Your task to perform on an android device: Check the news Image 0: 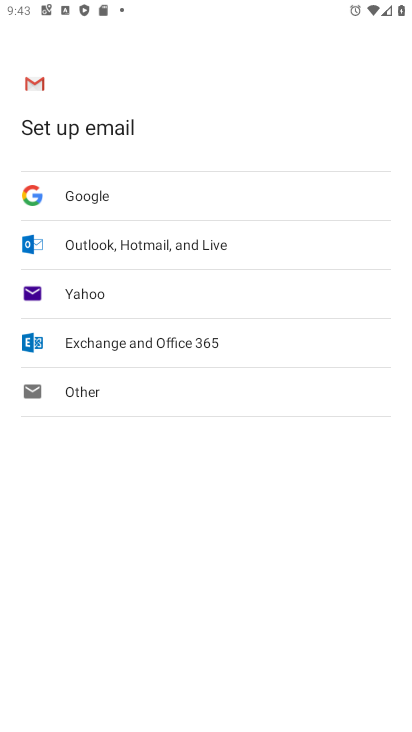
Step 0: press home button
Your task to perform on an android device: Check the news Image 1: 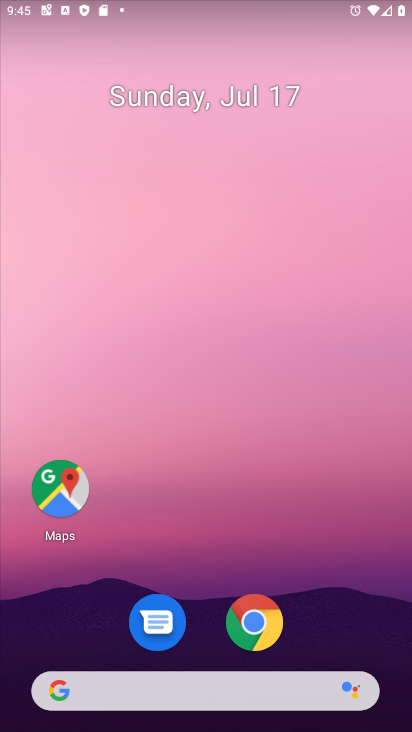
Step 1: drag from (195, 729) to (199, 66)
Your task to perform on an android device: Check the news Image 2: 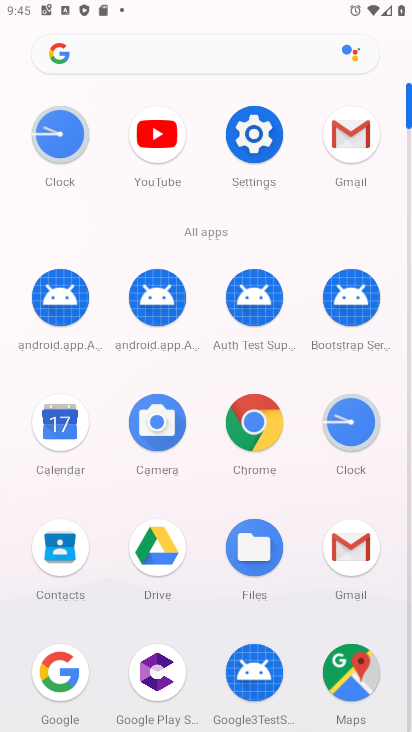
Step 2: click (224, 52)
Your task to perform on an android device: Check the news Image 3: 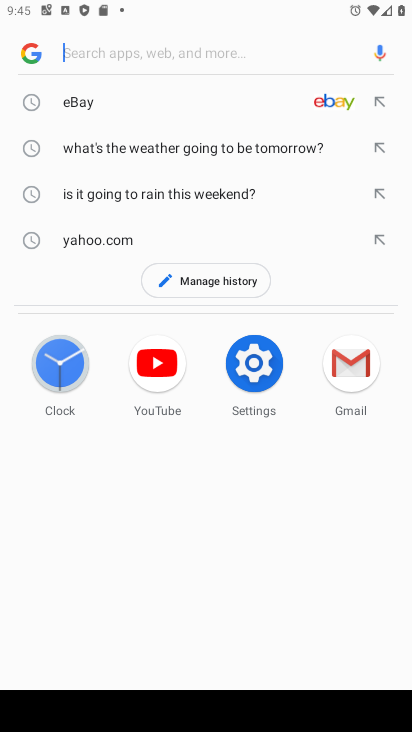
Step 3: type "news"
Your task to perform on an android device: Check the news Image 4: 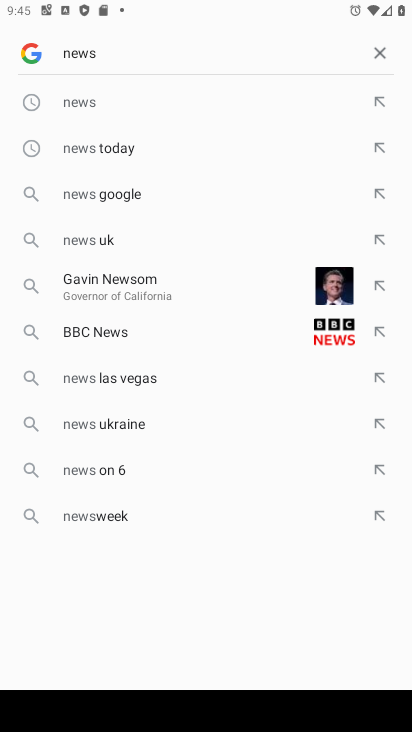
Step 4: click (176, 103)
Your task to perform on an android device: Check the news Image 5: 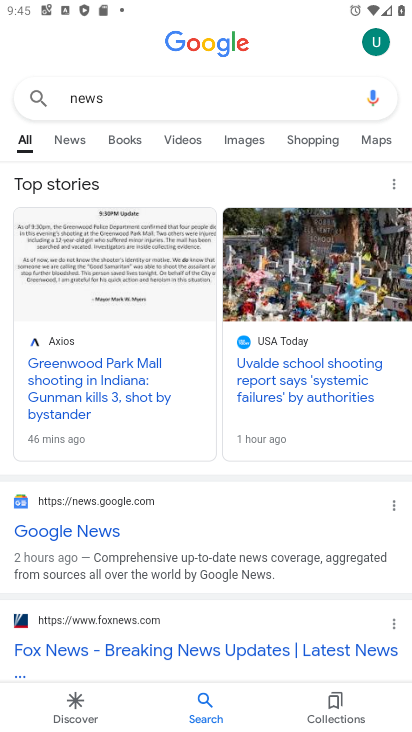
Step 5: task complete